Your task to perform on an android device: Search for the new Nintendo switch on Best Buy Image 0: 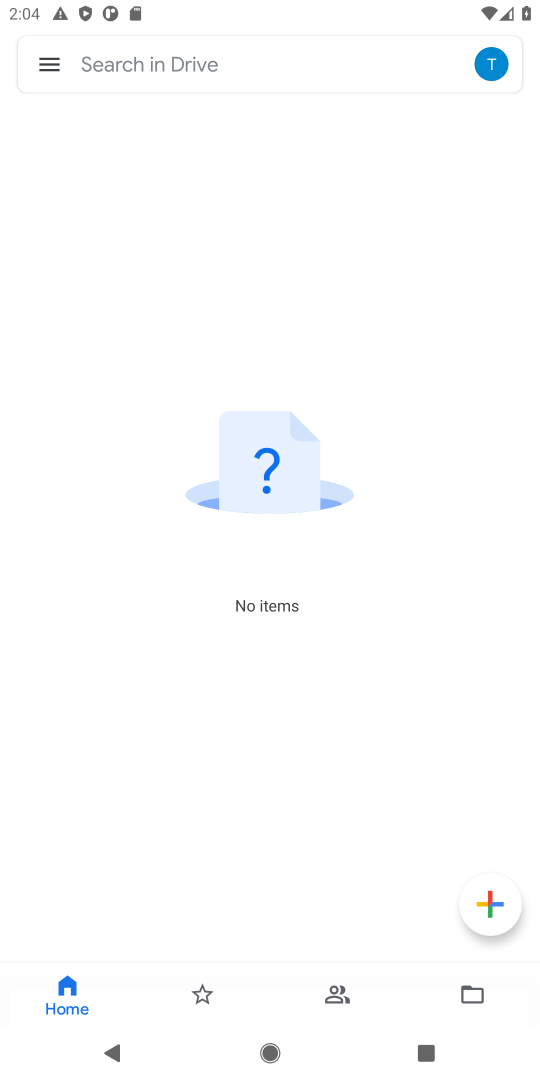
Step 0: press home button
Your task to perform on an android device: Search for the new Nintendo switch on Best Buy Image 1: 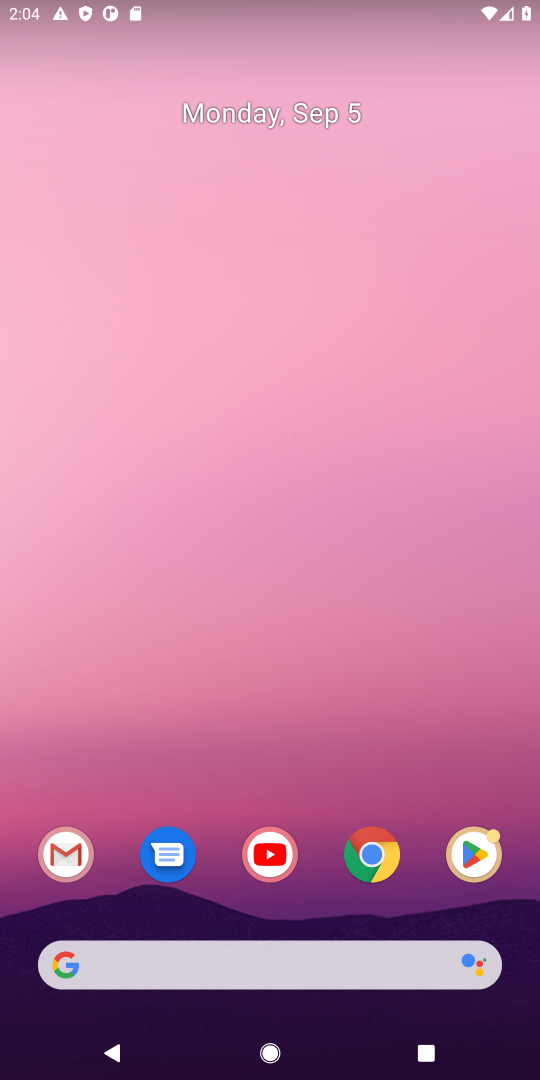
Step 1: click (334, 953)
Your task to perform on an android device: Search for the new Nintendo switch on Best Buy Image 2: 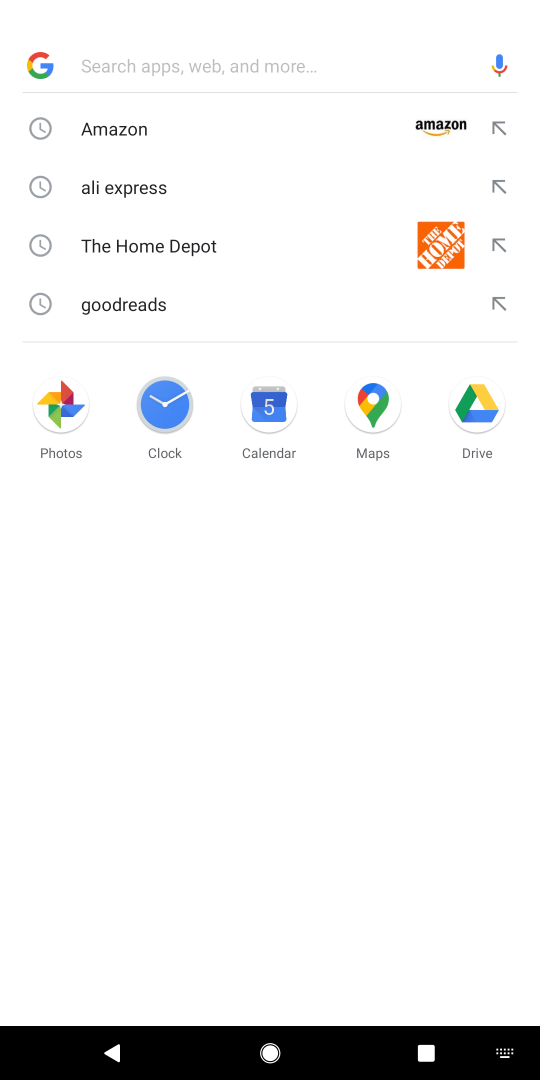
Step 2: type "best buy"
Your task to perform on an android device: Search for the new Nintendo switch on Best Buy Image 3: 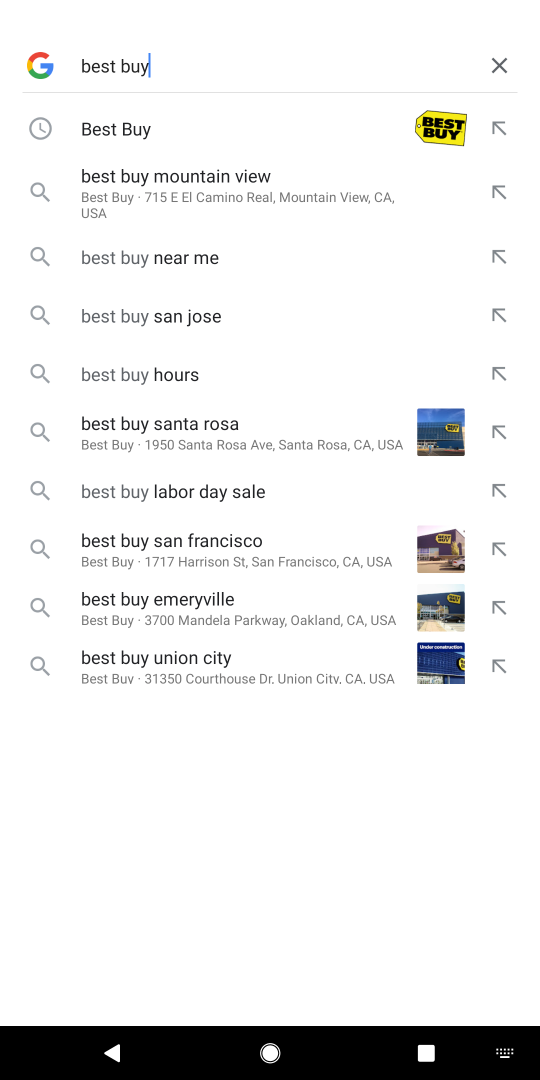
Step 3: press enter
Your task to perform on an android device: Search for the new Nintendo switch on Best Buy Image 4: 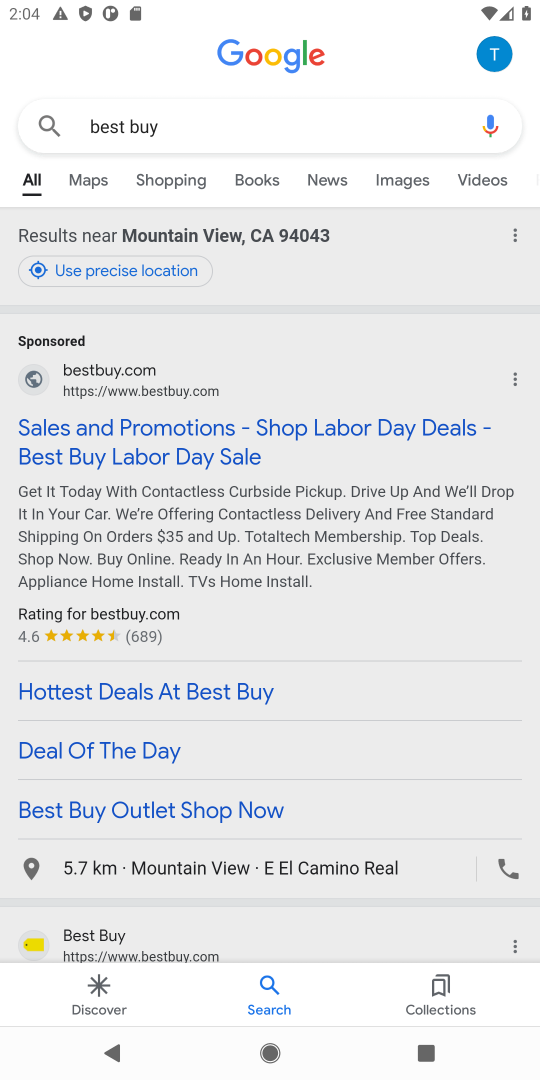
Step 4: click (209, 437)
Your task to perform on an android device: Search for the new Nintendo switch on Best Buy Image 5: 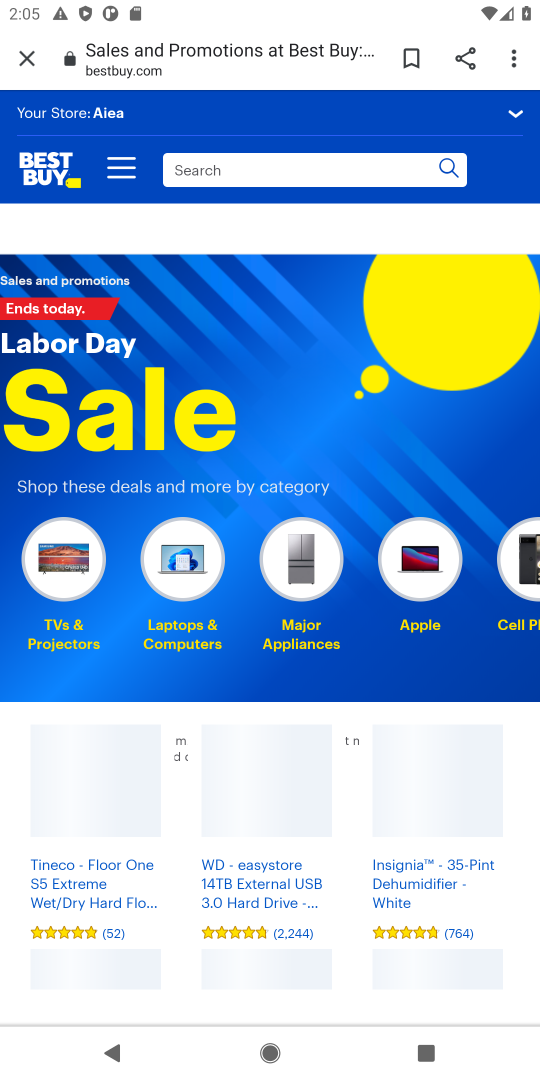
Step 5: click (220, 161)
Your task to perform on an android device: Search for the new Nintendo switch on Best Buy Image 6: 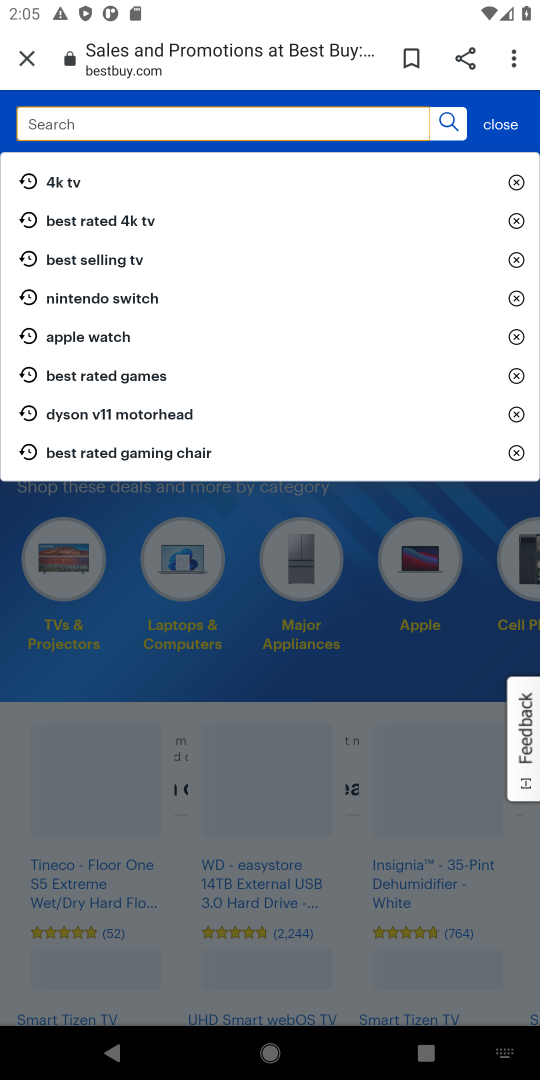
Step 6: press enter
Your task to perform on an android device: Search for the new Nintendo switch on Best Buy Image 7: 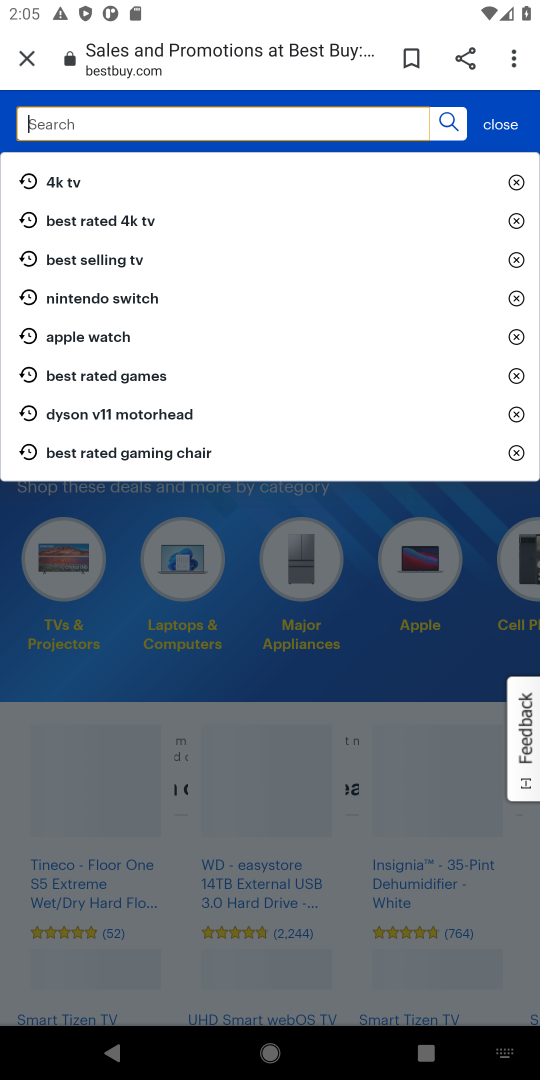
Step 7: type "new nintendo switch"
Your task to perform on an android device: Search for the new Nintendo switch on Best Buy Image 8: 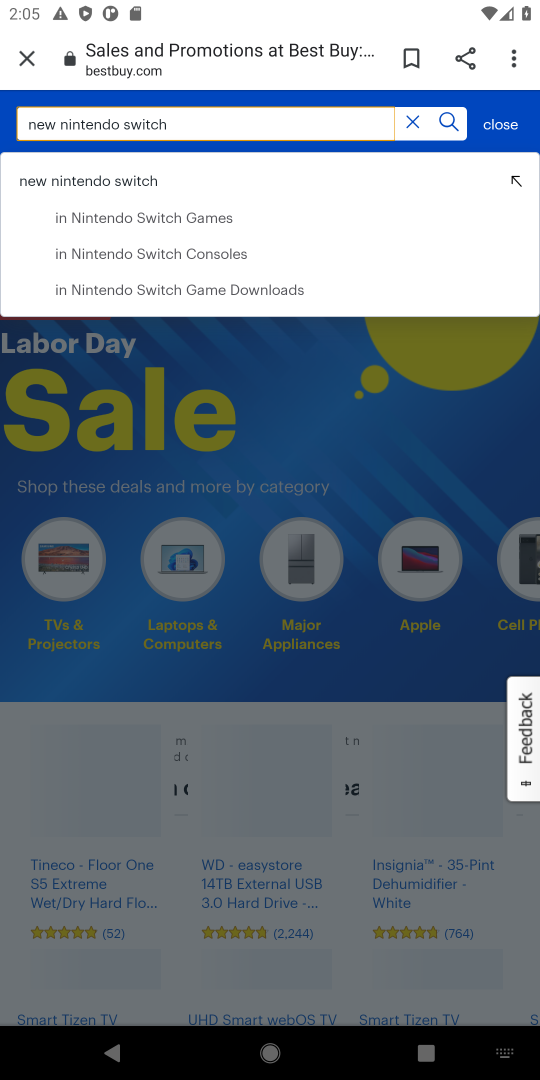
Step 8: click (443, 114)
Your task to perform on an android device: Search for the new Nintendo switch on Best Buy Image 9: 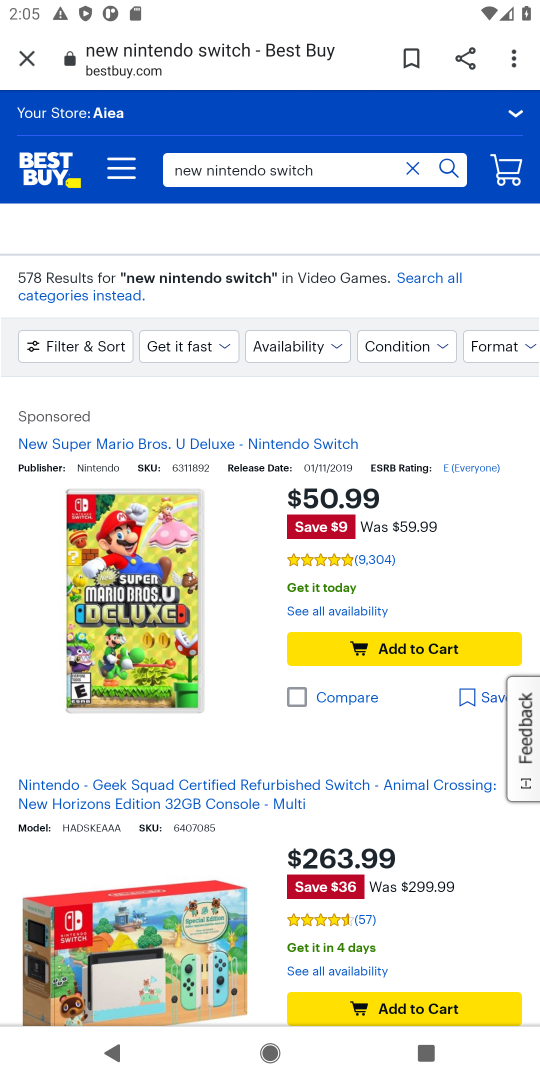
Step 9: task complete